Your task to perform on an android device: Do I have any events this weekend? Image 0: 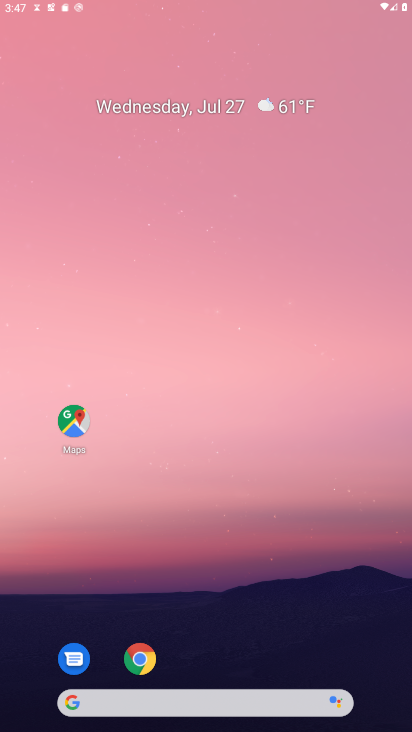
Step 0: click (74, 417)
Your task to perform on an android device: Do I have any events this weekend? Image 1: 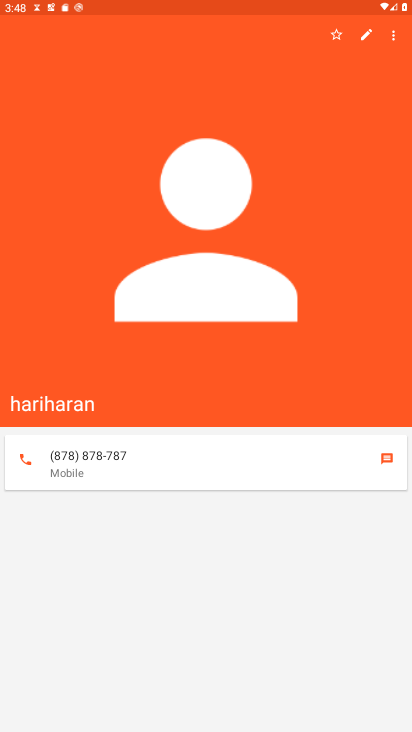
Step 1: press home button
Your task to perform on an android device: Do I have any events this weekend? Image 2: 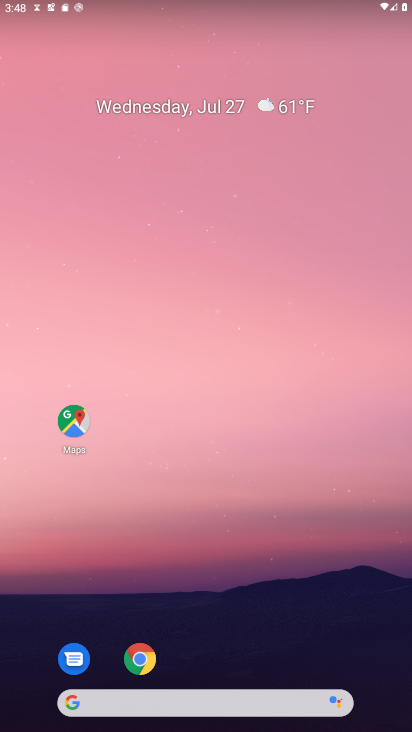
Step 2: drag from (197, 694) to (153, 229)
Your task to perform on an android device: Do I have any events this weekend? Image 3: 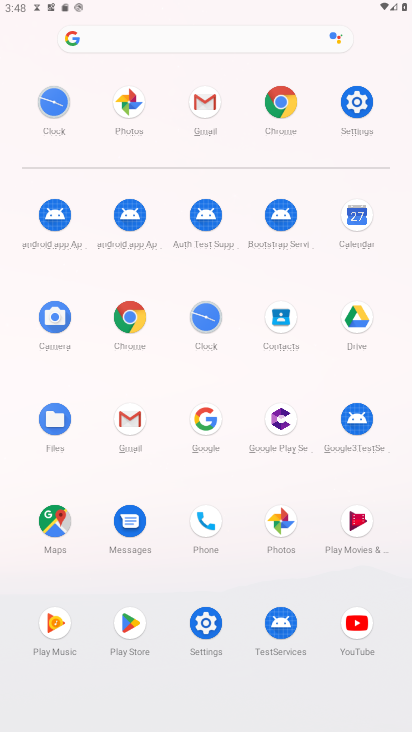
Step 3: click (346, 224)
Your task to perform on an android device: Do I have any events this weekend? Image 4: 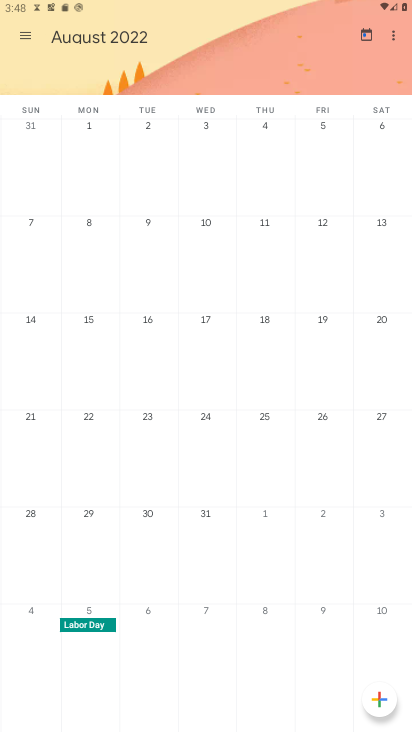
Step 4: click (25, 32)
Your task to perform on an android device: Do I have any events this weekend? Image 5: 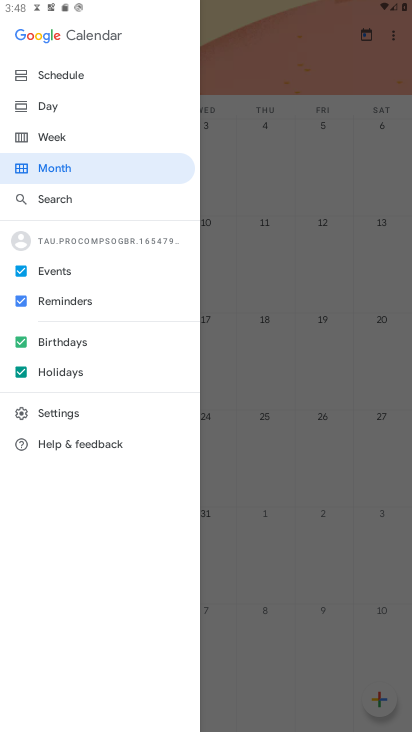
Step 5: click (65, 135)
Your task to perform on an android device: Do I have any events this weekend? Image 6: 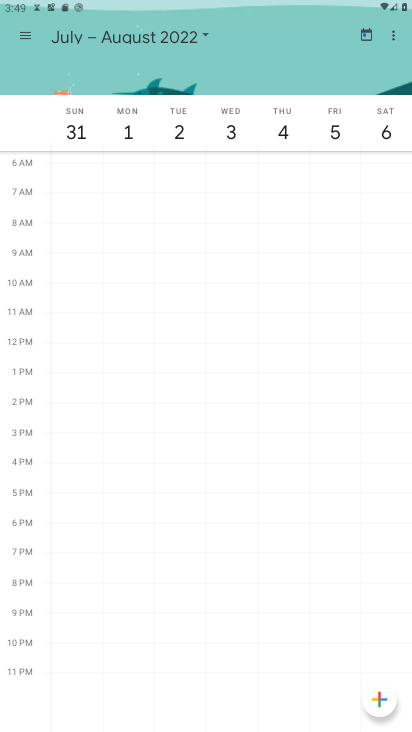
Step 6: task complete